Your task to perform on an android device: Open calendar and show me the second week of next month Image 0: 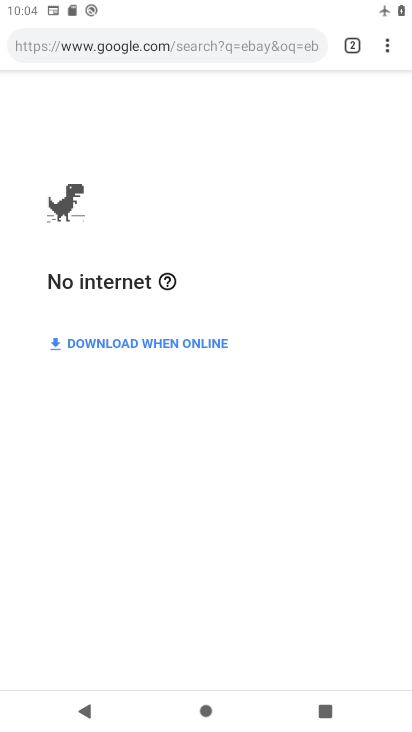
Step 0: press home button
Your task to perform on an android device: Open calendar and show me the second week of next month Image 1: 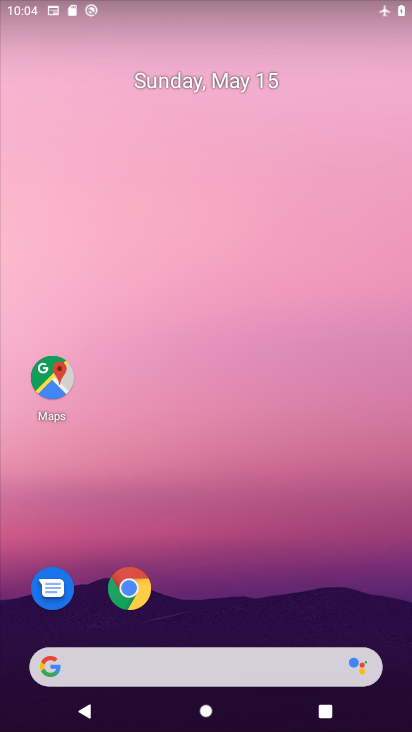
Step 1: click (185, 87)
Your task to perform on an android device: Open calendar and show me the second week of next month Image 2: 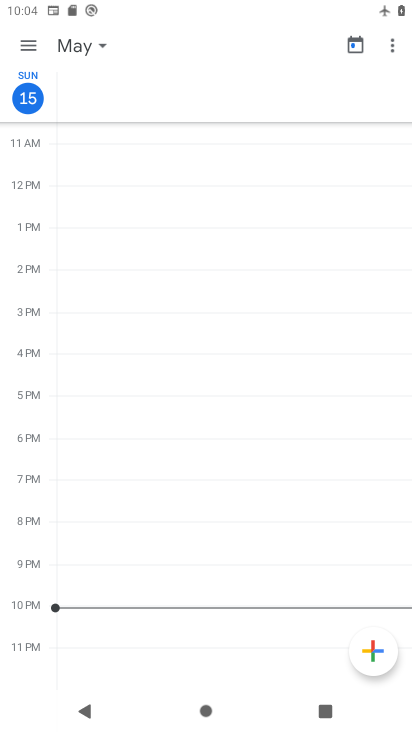
Step 2: click (29, 53)
Your task to perform on an android device: Open calendar and show me the second week of next month Image 3: 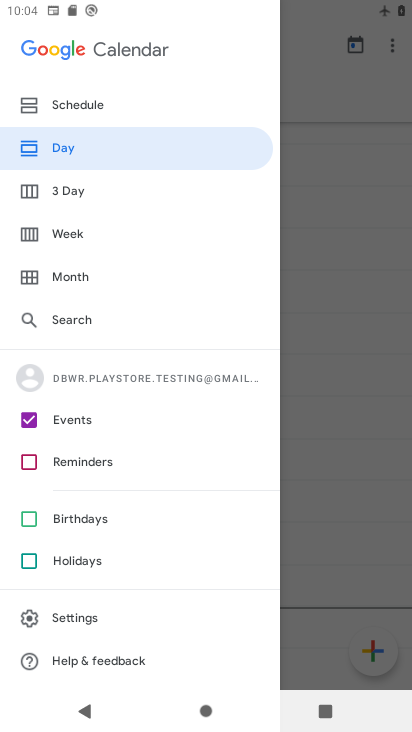
Step 3: click (74, 234)
Your task to perform on an android device: Open calendar and show me the second week of next month Image 4: 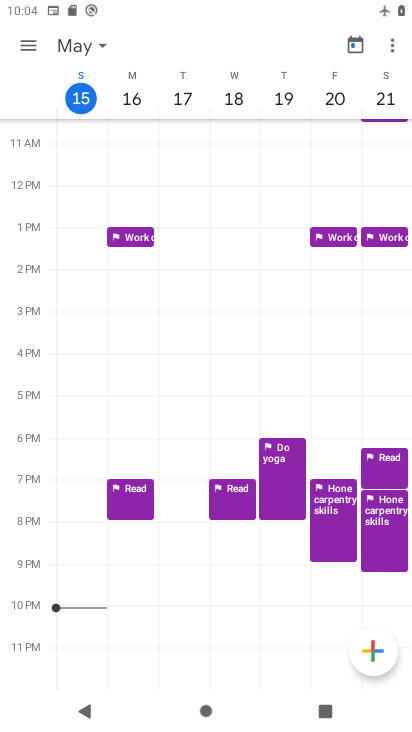
Step 4: click (93, 41)
Your task to perform on an android device: Open calendar and show me the second week of next month Image 5: 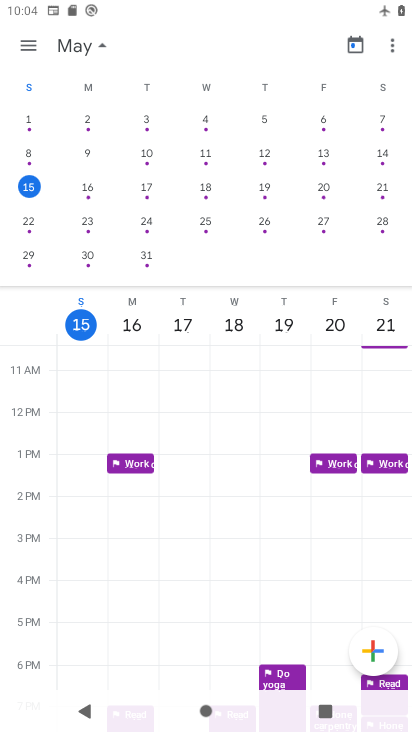
Step 5: drag from (372, 160) to (0, 110)
Your task to perform on an android device: Open calendar and show me the second week of next month Image 6: 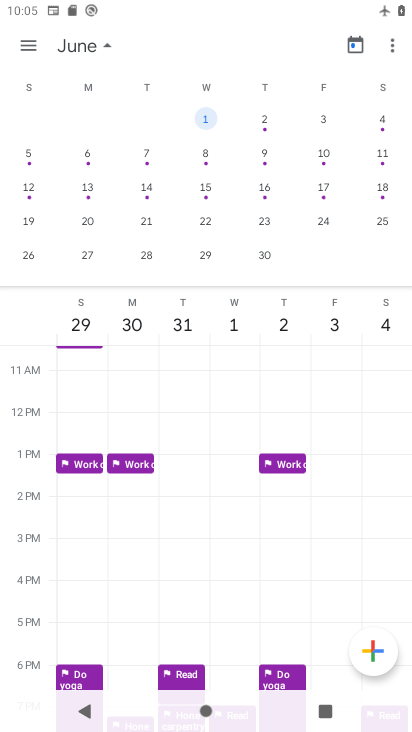
Step 6: click (204, 157)
Your task to perform on an android device: Open calendar and show me the second week of next month Image 7: 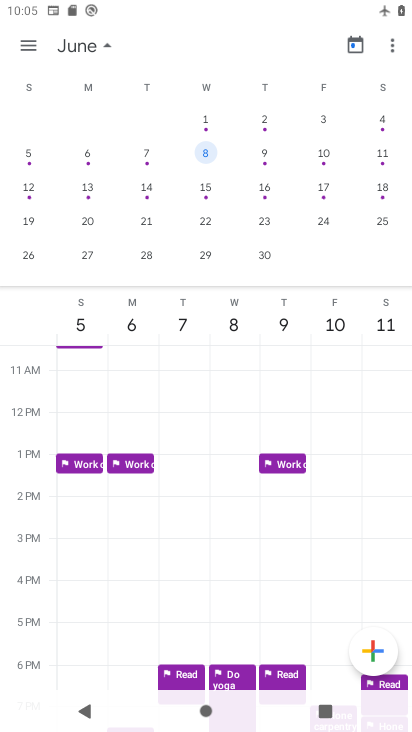
Step 7: task complete